Your task to perform on an android device: What is the recent news? Image 0: 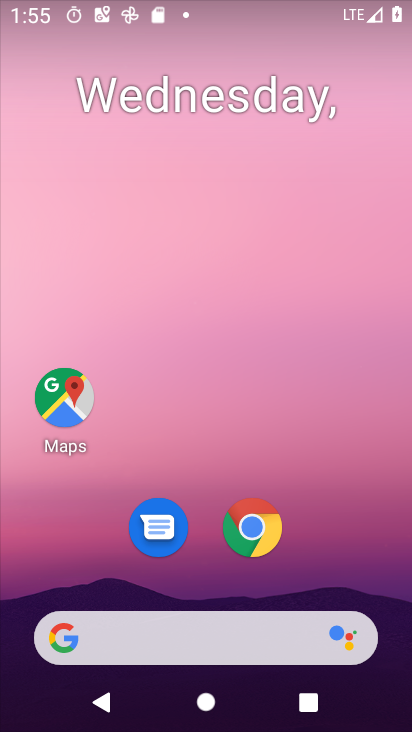
Step 0: drag from (325, 628) to (319, 71)
Your task to perform on an android device: What is the recent news? Image 1: 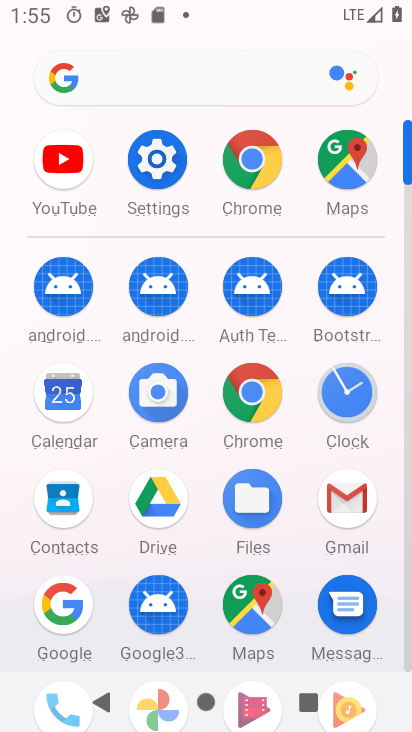
Step 1: click (260, 385)
Your task to perform on an android device: What is the recent news? Image 2: 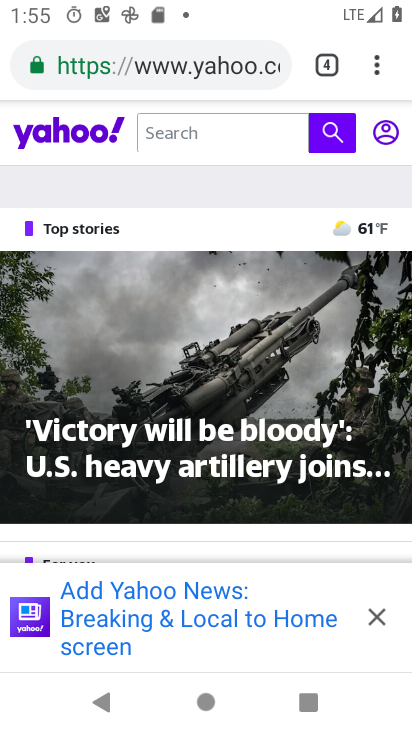
Step 2: click (221, 64)
Your task to perform on an android device: What is the recent news? Image 3: 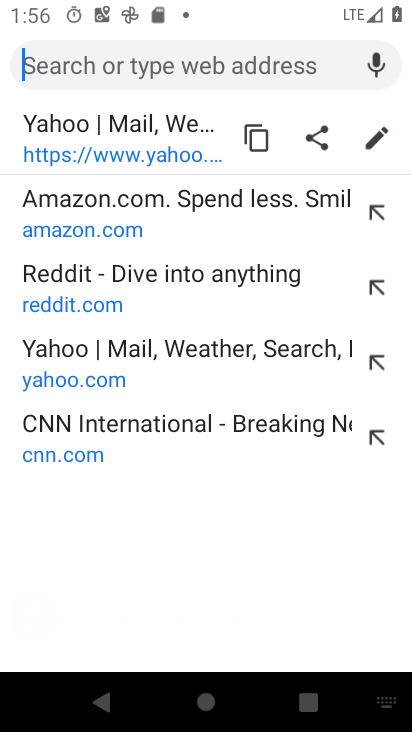
Step 3: type "recent news"
Your task to perform on an android device: What is the recent news? Image 4: 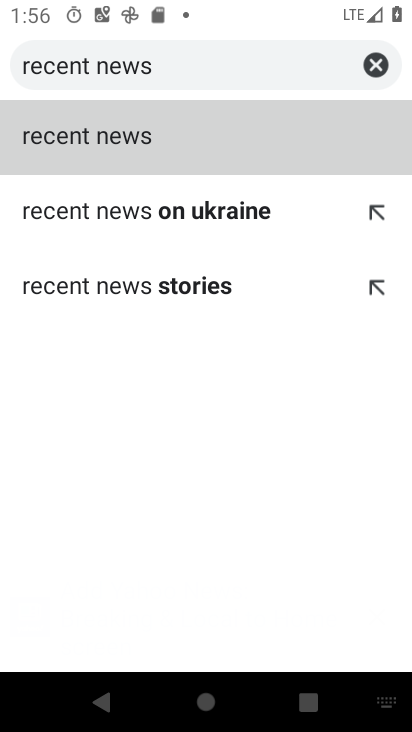
Step 4: click (202, 137)
Your task to perform on an android device: What is the recent news? Image 5: 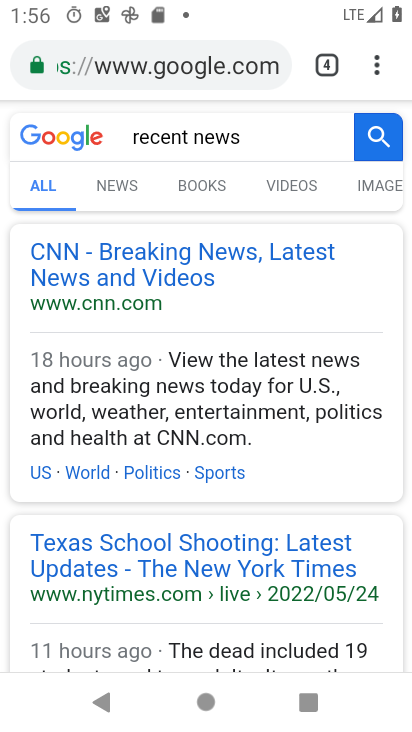
Step 5: task complete